Your task to perform on an android device: toggle wifi Image 0: 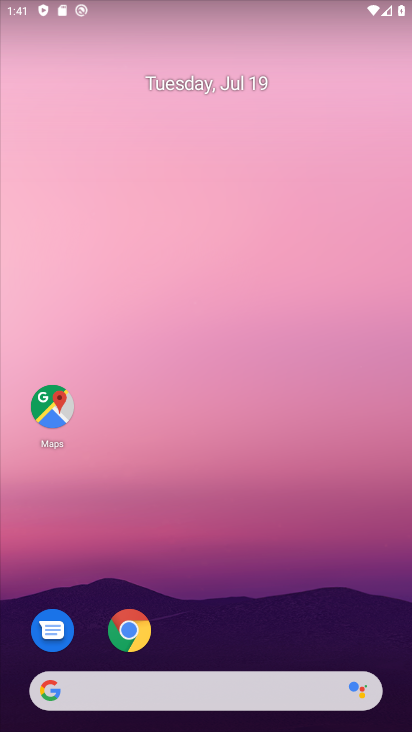
Step 0: press home button
Your task to perform on an android device: toggle wifi Image 1: 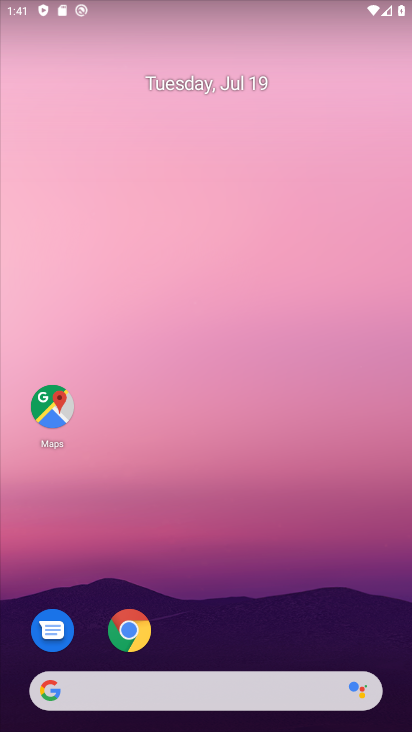
Step 1: drag from (217, 649) to (166, 97)
Your task to perform on an android device: toggle wifi Image 2: 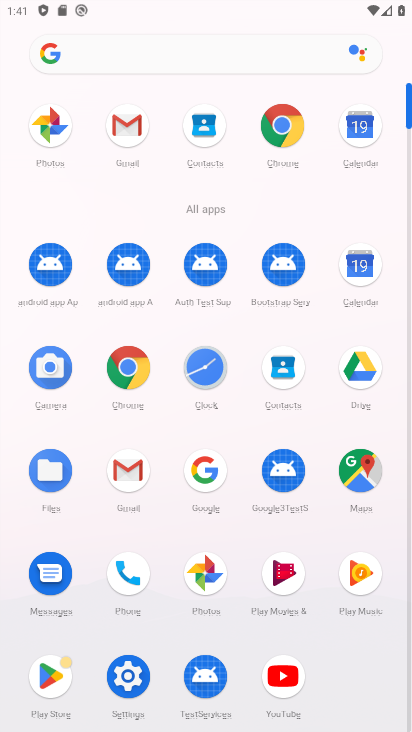
Step 2: click (127, 674)
Your task to perform on an android device: toggle wifi Image 3: 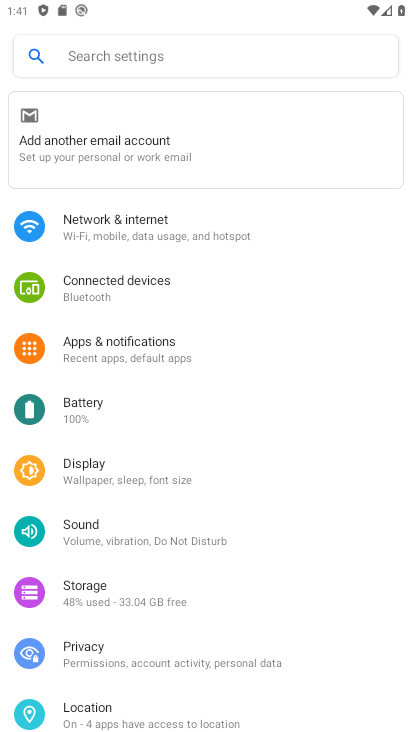
Step 3: click (117, 222)
Your task to perform on an android device: toggle wifi Image 4: 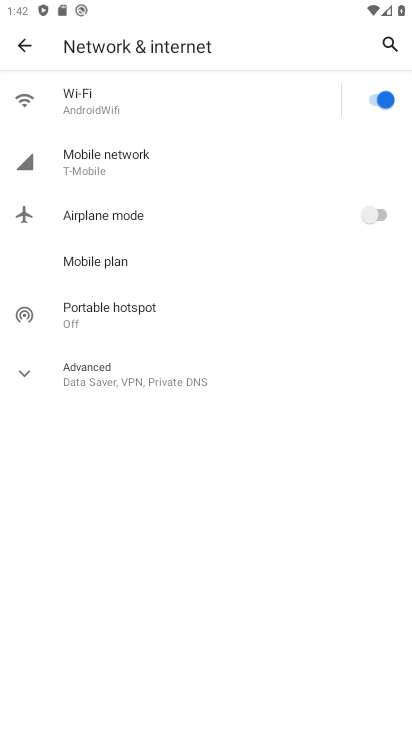
Step 4: click (379, 102)
Your task to perform on an android device: toggle wifi Image 5: 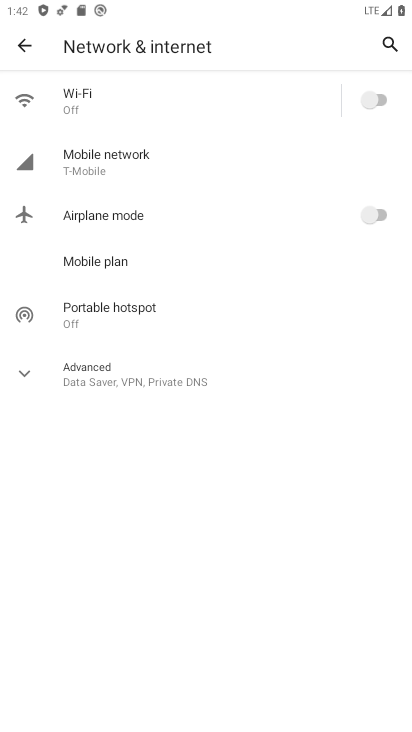
Step 5: task complete